Your task to perform on an android device: toggle airplane mode Image 0: 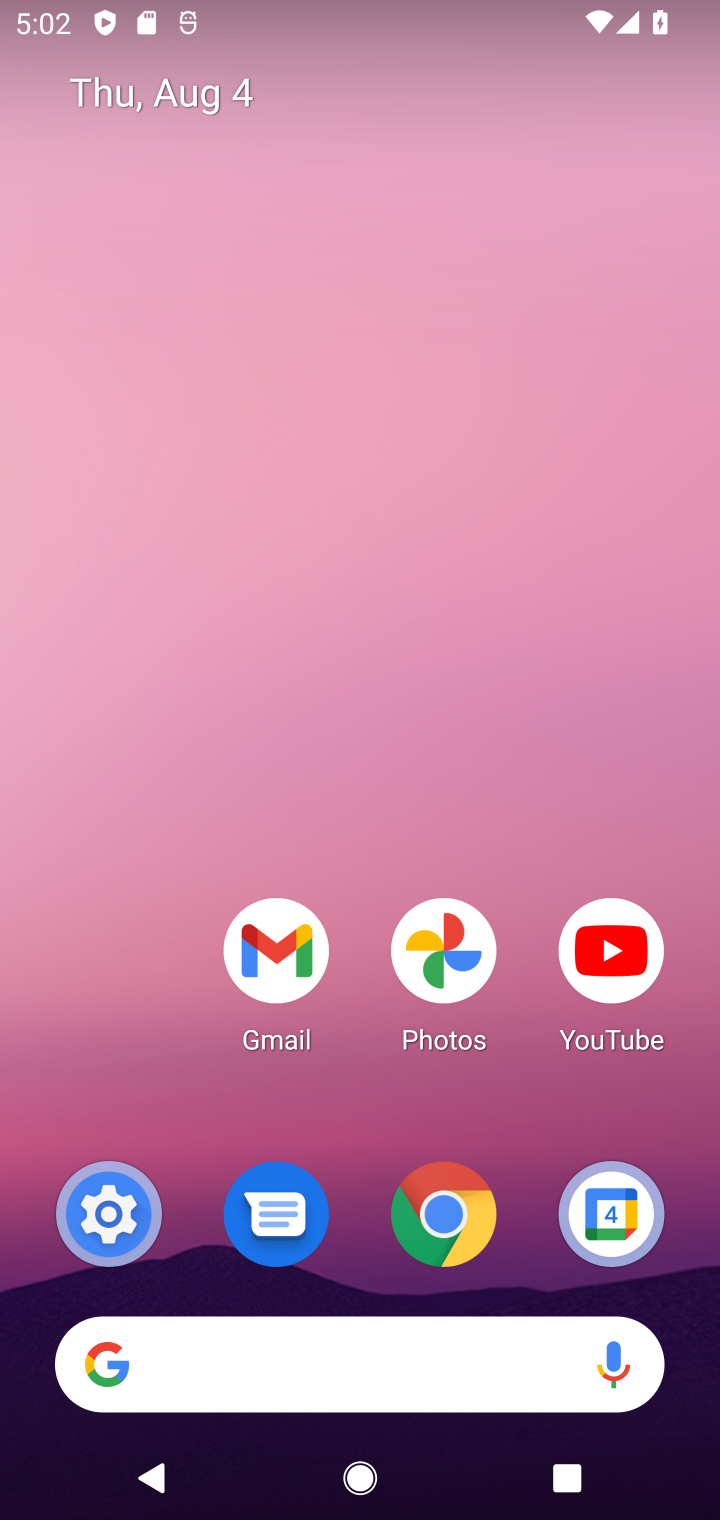
Step 0: drag from (532, 889) to (495, 85)
Your task to perform on an android device: toggle airplane mode Image 1: 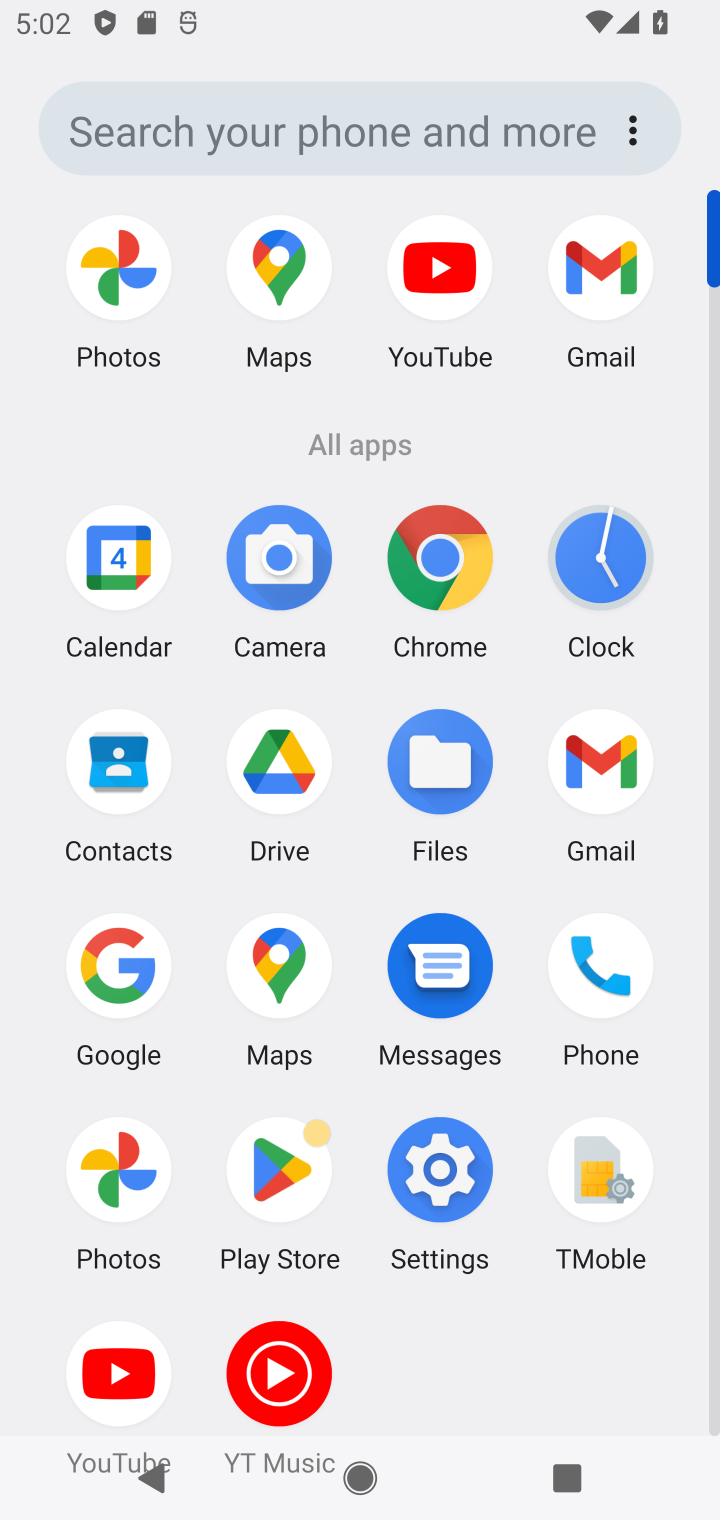
Step 1: click (448, 1188)
Your task to perform on an android device: toggle airplane mode Image 2: 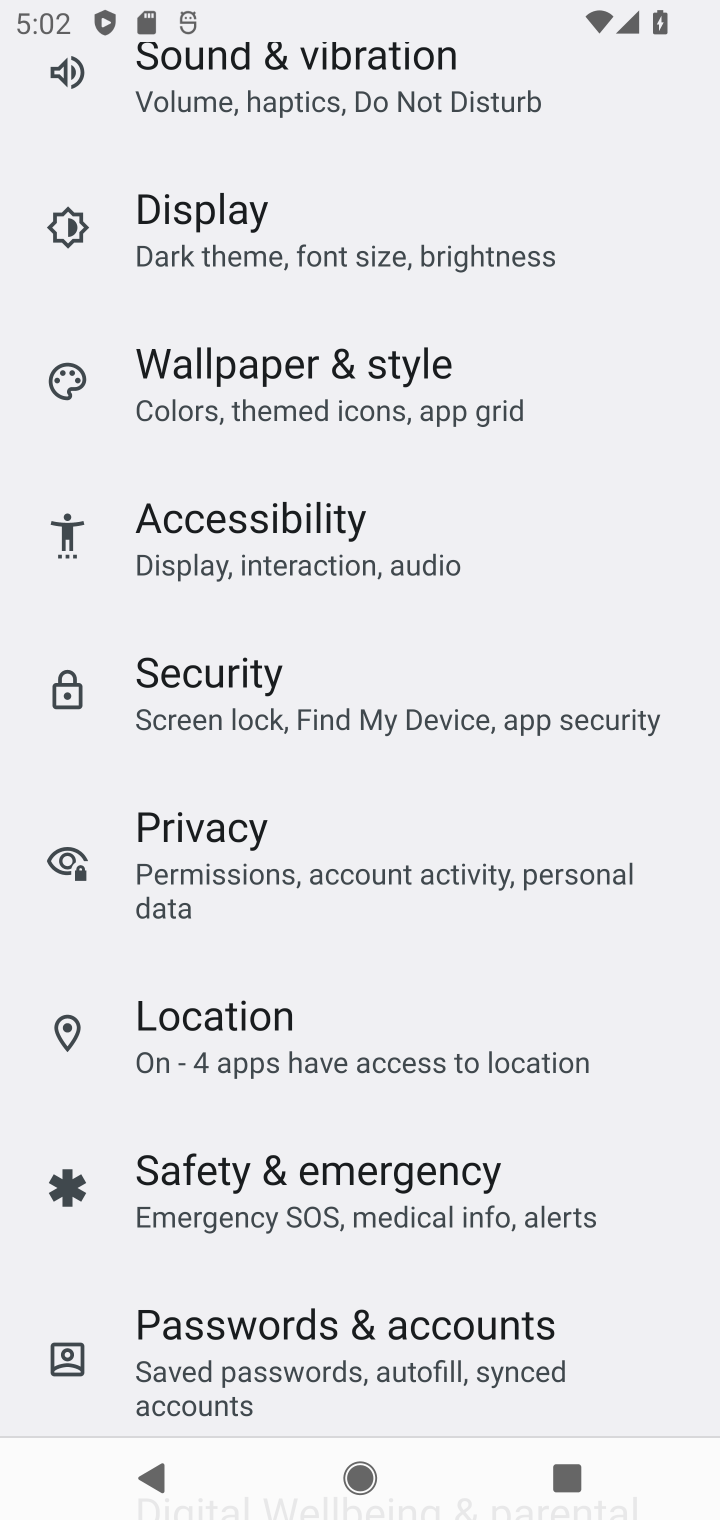
Step 2: drag from (297, 183) to (320, 1471)
Your task to perform on an android device: toggle airplane mode Image 3: 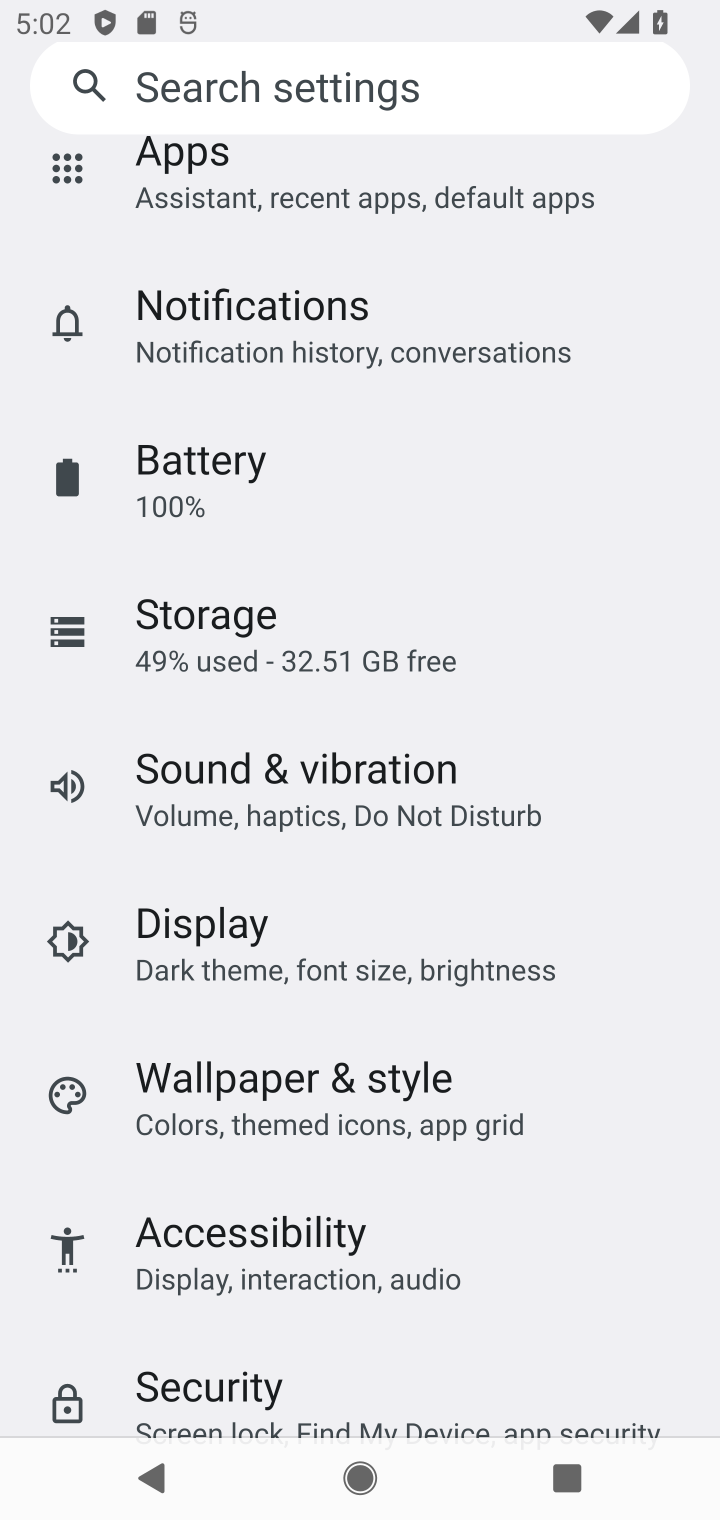
Step 3: drag from (352, 240) to (487, 1134)
Your task to perform on an android device: toggle airplane mode Image 4: 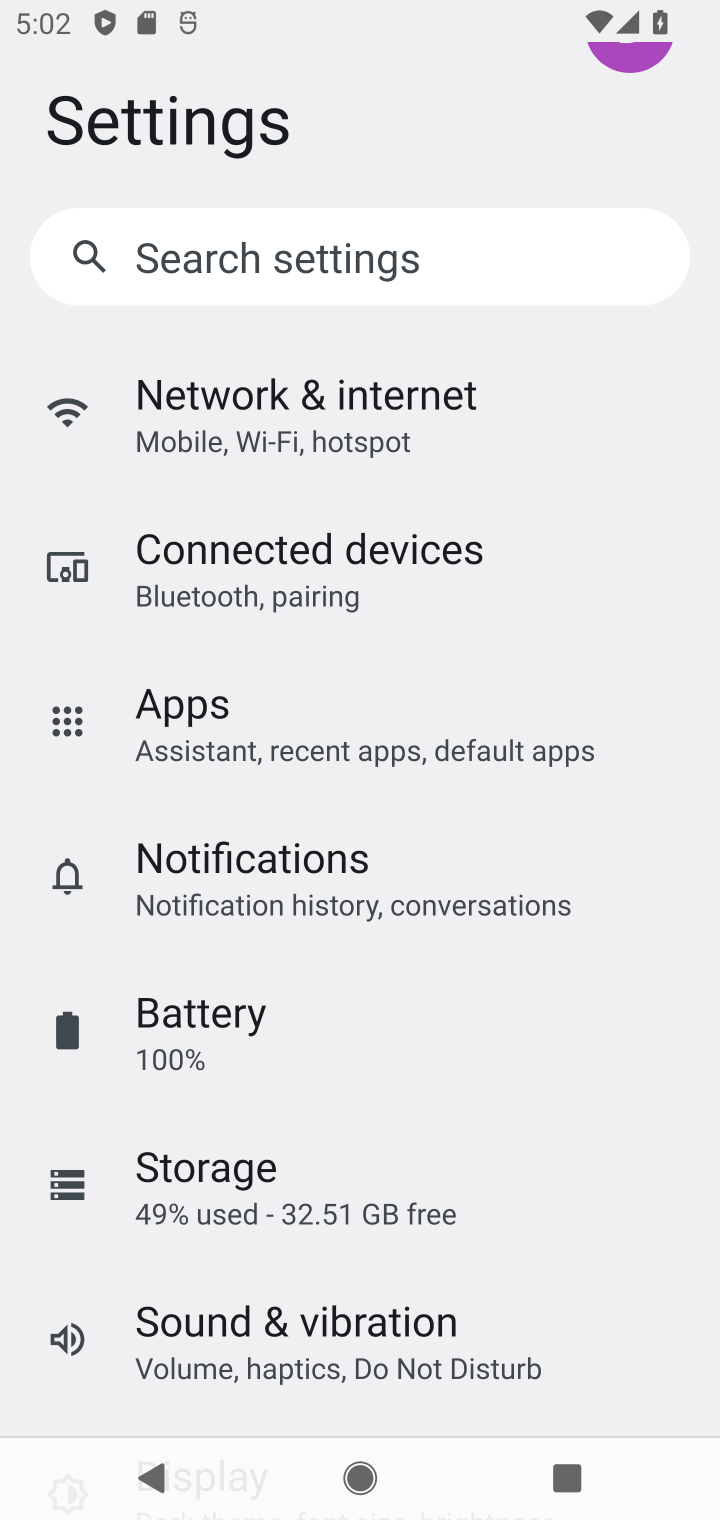
Step 4: click (375, 434)
Your task to perform on an android device: toggle airplane mode Image 5: 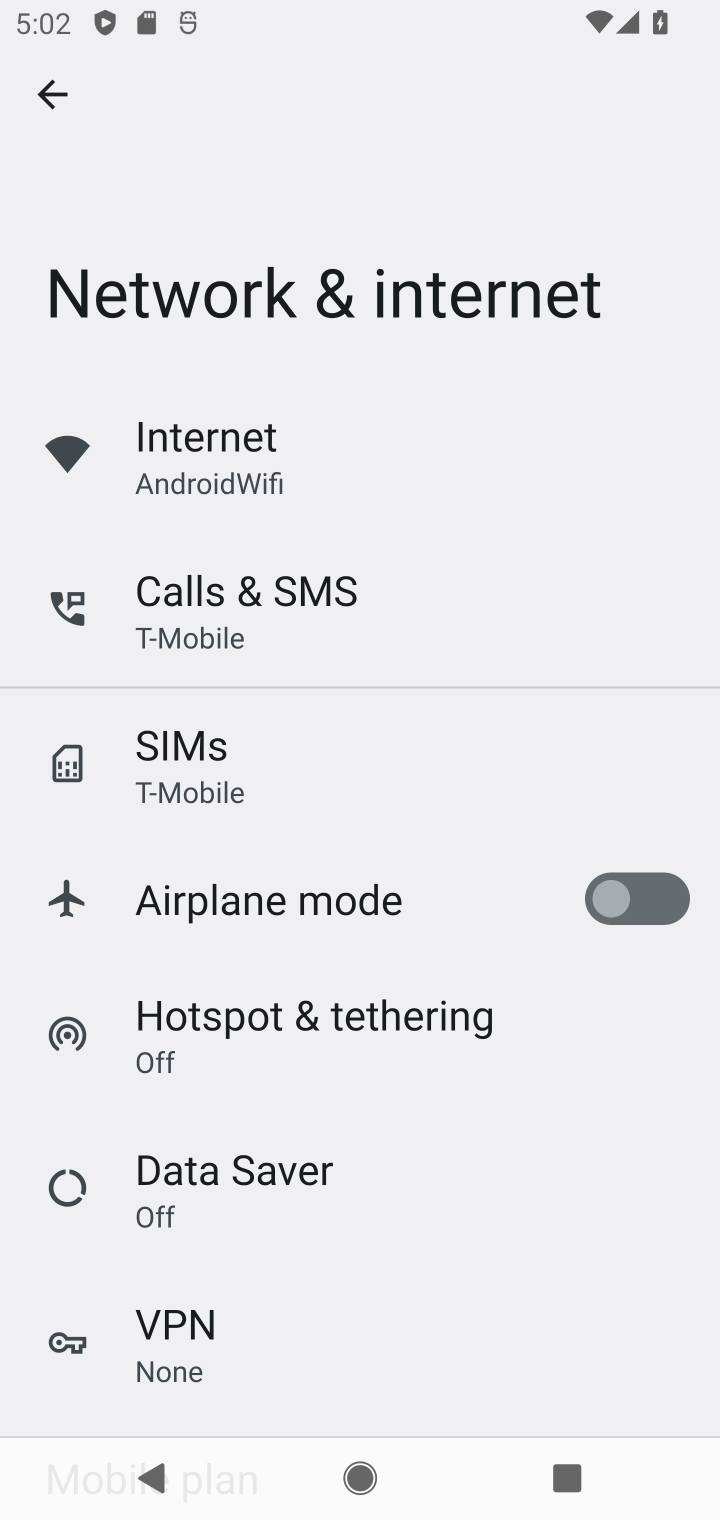
Step 5: click (667, 885)
Your task to perform on an android device: toggle airplane mode Image 6: 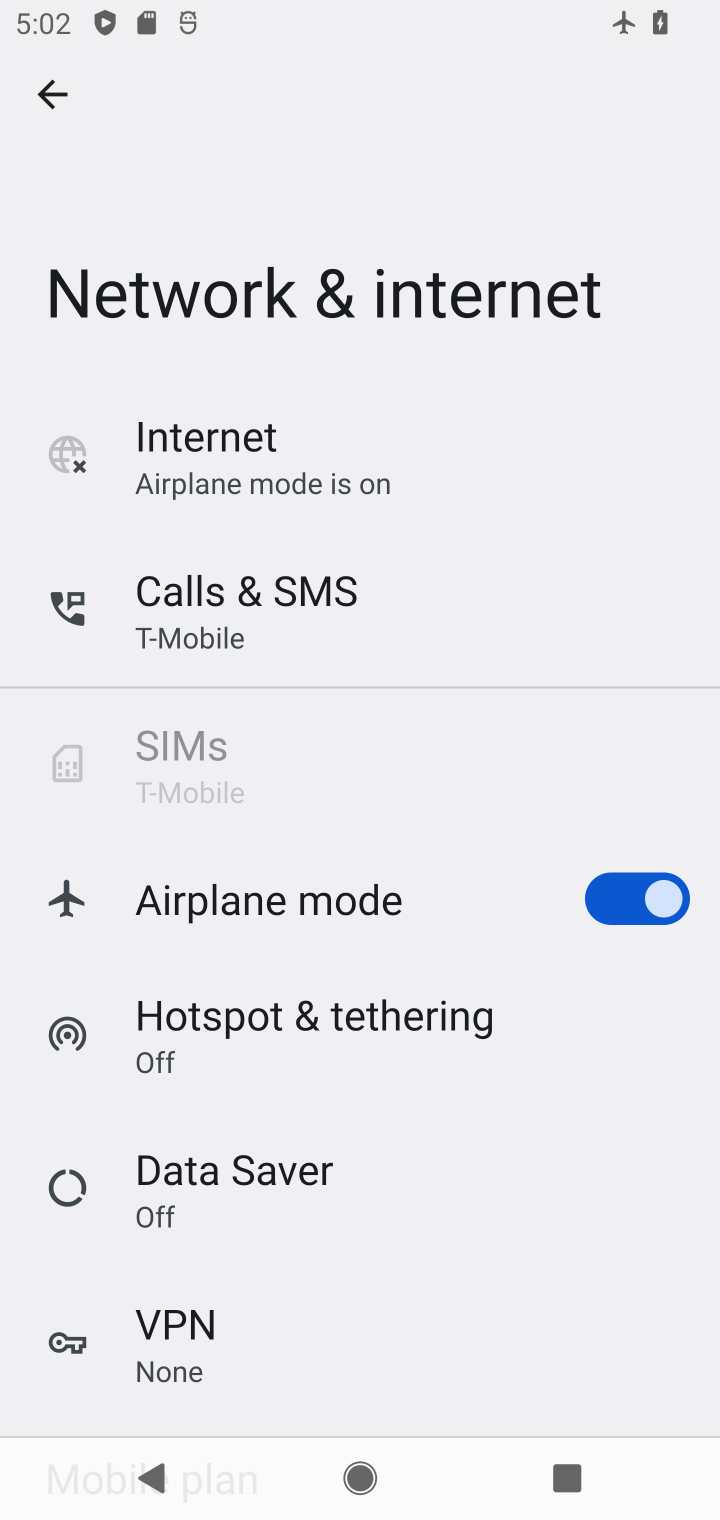
Step 6: task complete